Your task to perform on an android device: Go to Google maps Image 0: 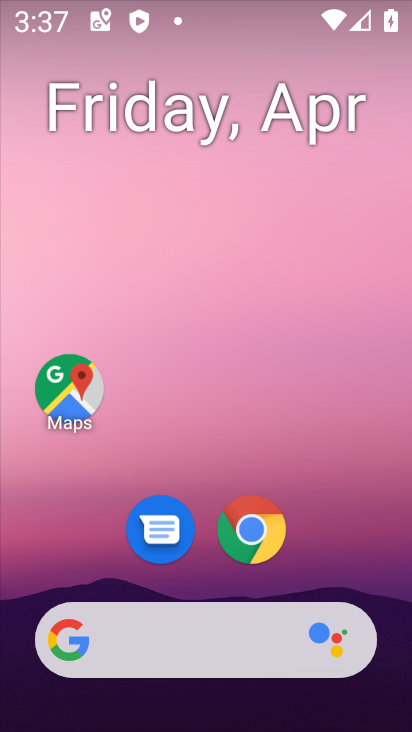
Step 0: click (70, 395)
Your task to perform on an android device: Go to Google maps Image 1: 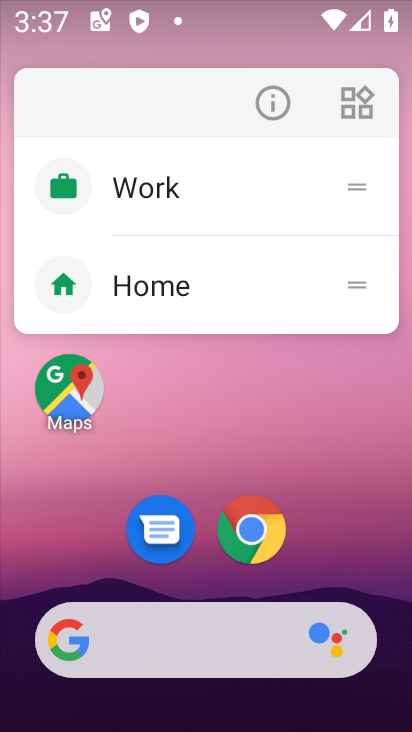
Step 1: click (70, 395)
Your task to perform on an android device: Go to Google maps Image 2: 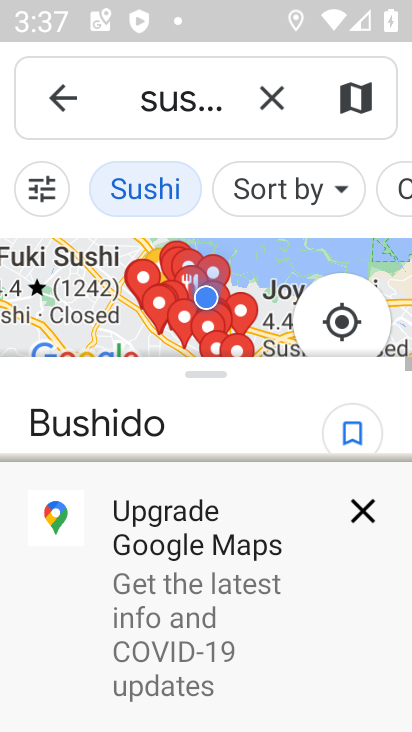
Step 2: click (59, 109)
Your task to perform on an android device: Go to Google maps Image 3: 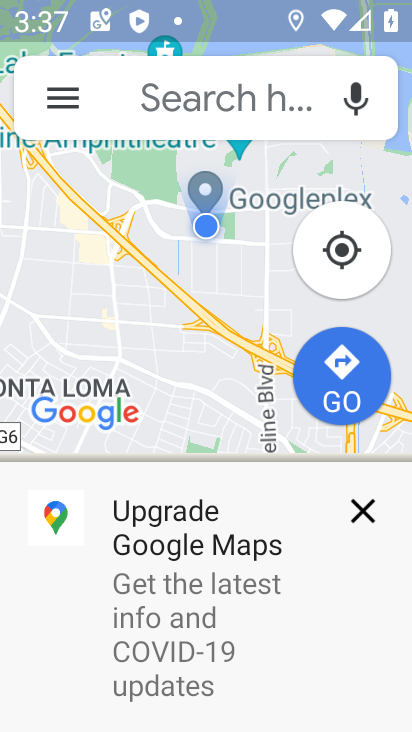
Step 3: task complete